Your task to perform on an android device: Open Google Maps Image 0: 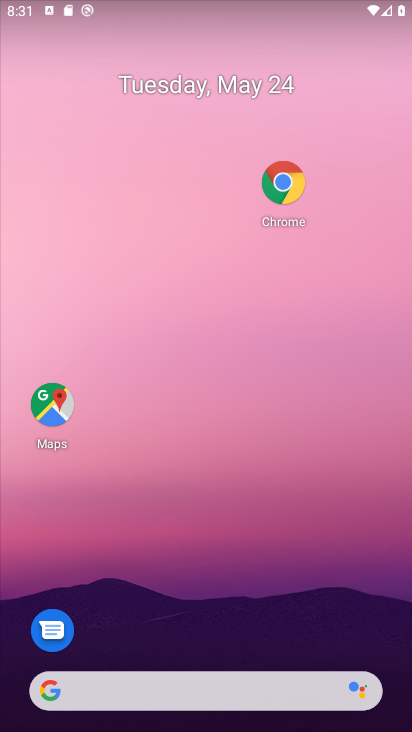
Step 0: press home button
Your task to perform on an android device: Open Google Maps Image 1: 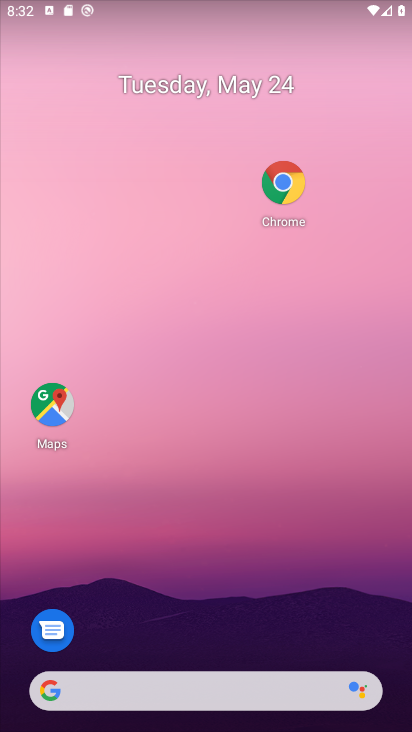
Step 1: drag from (238, 678) to (210, 305)
Your task to perform on an android device: Open Google Maps Image 2: 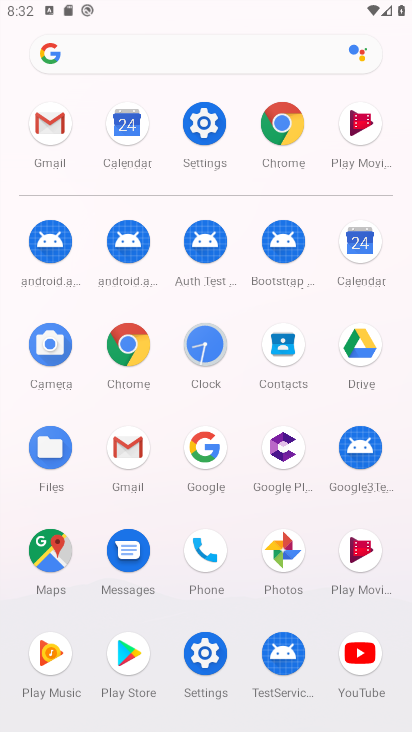
Step 2: click (62, 548)
Your task to perform on an android device: Open Google Maps Image 3: 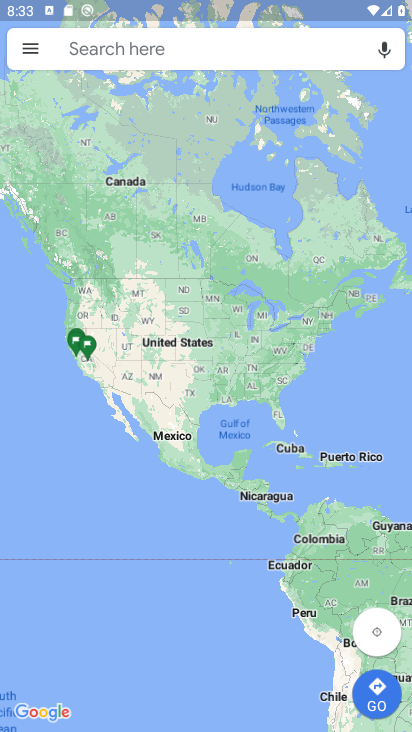
Step 3: task complete